Your task to perform on an android device: all mails in gmail Image 0: 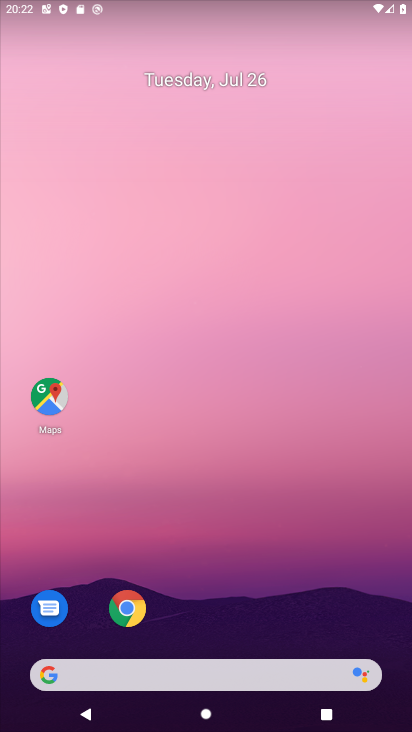
Step 0: drag from (27, 705) to (139, 11)
Your task to perform on an android device: all mails in gmail Image 1: 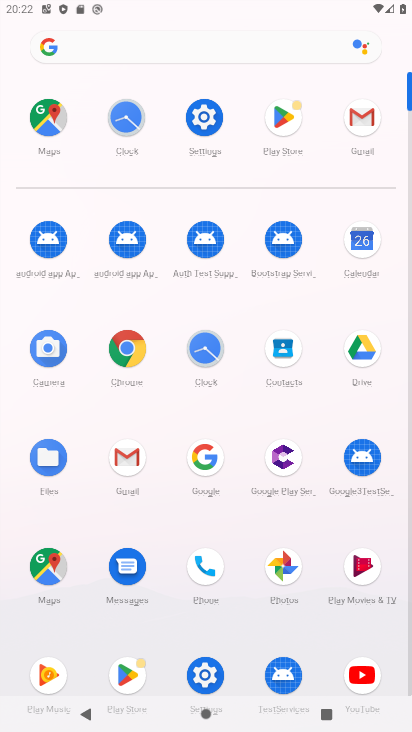
Step 1: click (125, 466)
Your task to perform on an android device: all mails in gmail Image 2: 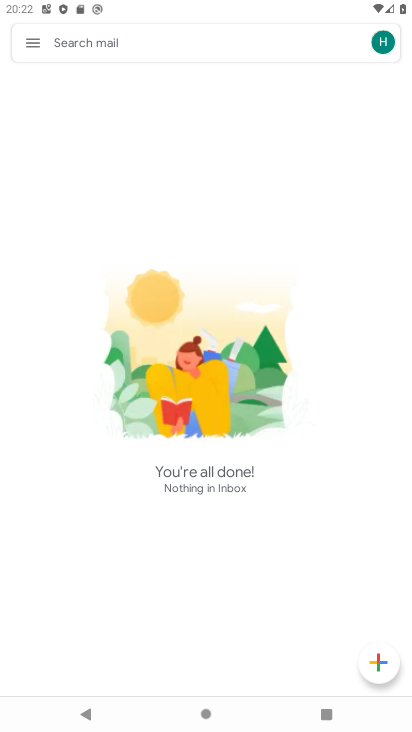
Step 2: click (26, 37)
Your task to perform on an android device: all mails in gmail Image 3: 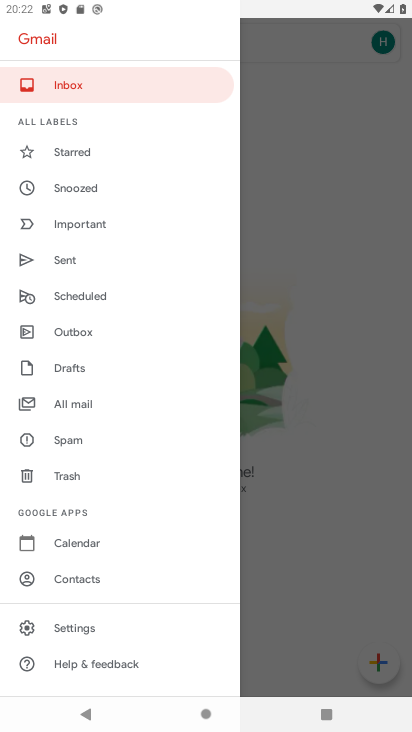
Step 3: click (71, 389)
Your task to perform on an android device: all mails in gmail Image 4: 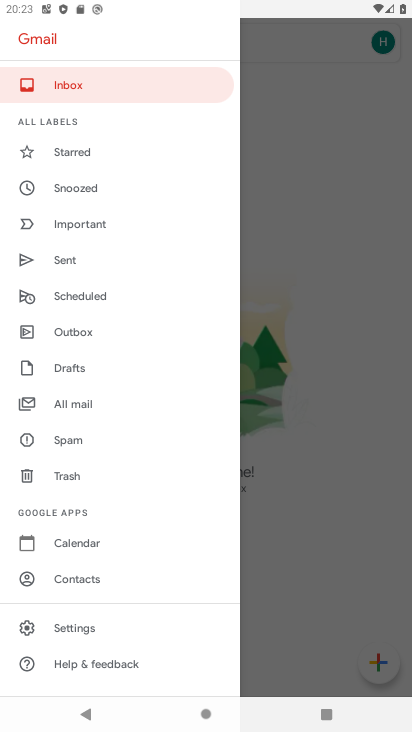
Step 4: click (63, 405)
Your task to perform on an android device: all mails in gmail Image 5: 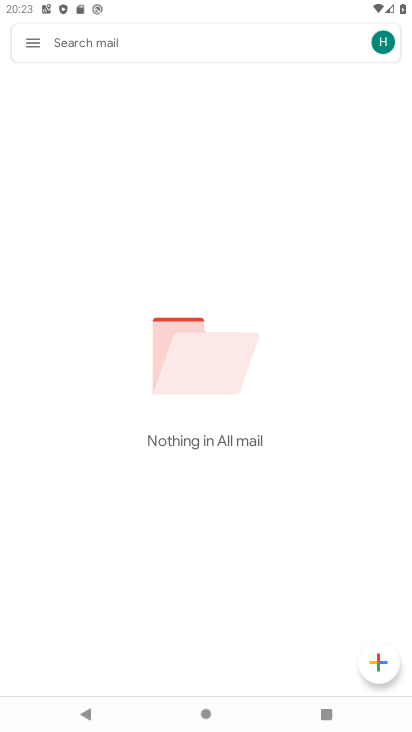
Step 5: task complete